Your task to perform on an android device: open app "Google Play services" (install if not already installed) Image 0: 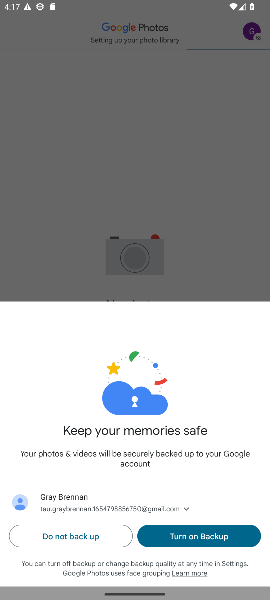
Step 0: press home button
Your task to perform on an android device: open app "Google Play services" (install if not already installed) Image 1: 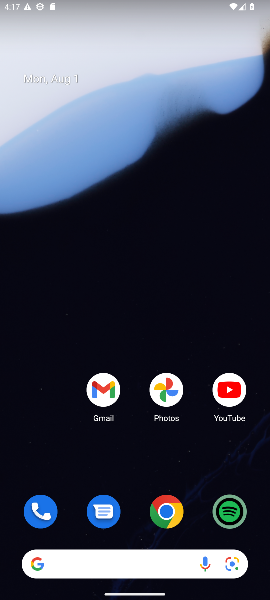
Step 1: drag from (125, 518) to (153, 48)
Your task to perform on an android device: open app "Google Play services" (install if not already installed) Image 2: 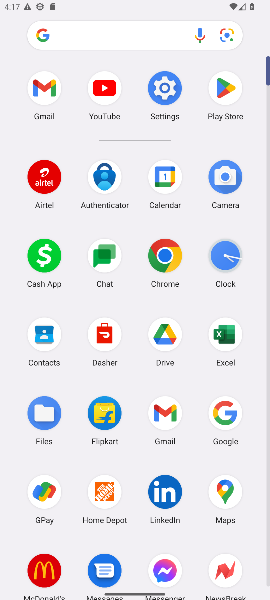
Step 2: click (219, 109)
Your task to perform on an android device: open app "Google Play services" (install if not already installed) Image 3: 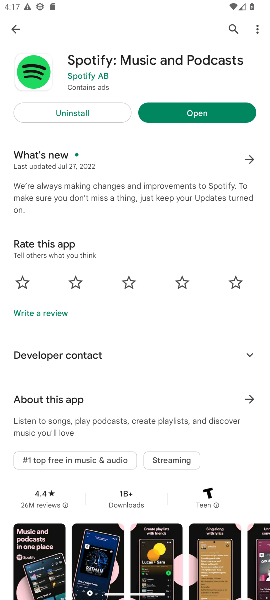
Step 3: task complete